Your task to perform on an android device: Open Google Maps Image 0: 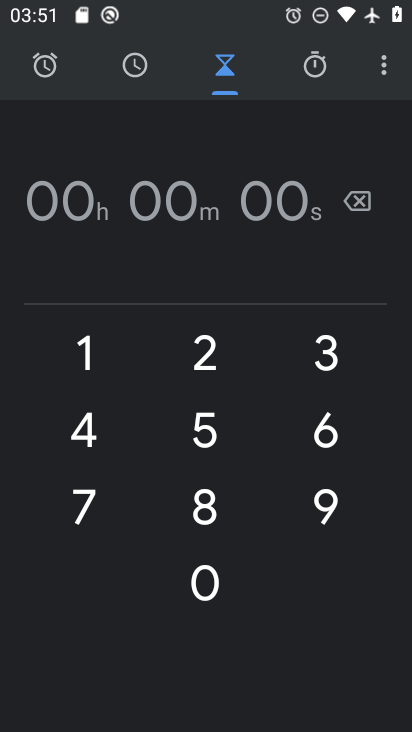
Step 0: press home button
Your task to perform on an android device: Open Google Maps Image 1: 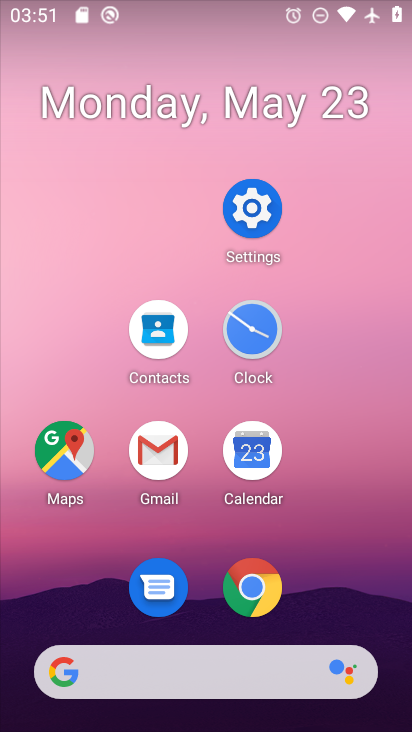
Step 1: click (51, 467)
Your task to perform on an android device: Open Google Maps Image 2: 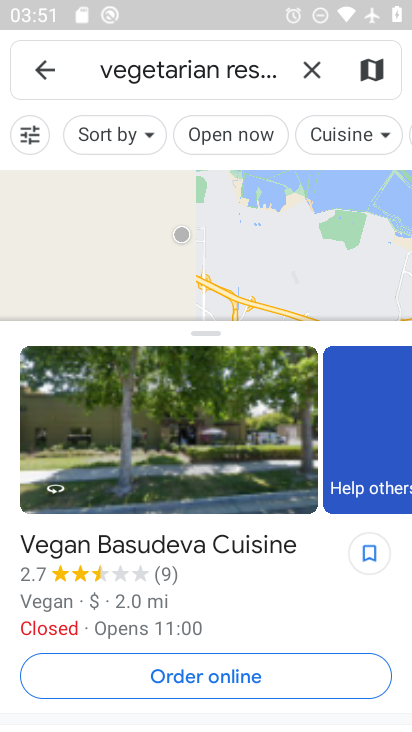
Step 2: task complete